Your task to perform on an android device: turn off airplane mode Image 0: 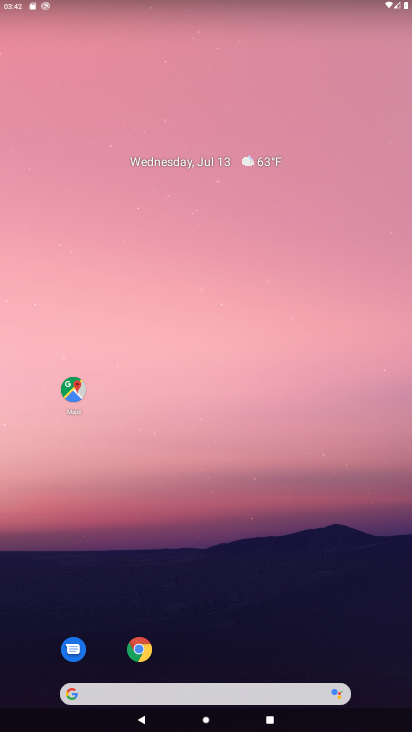
Step 0: drag from (245, 607) to (253, 3)
Your task to perform on an android device: turn off airplane mode Image 1: 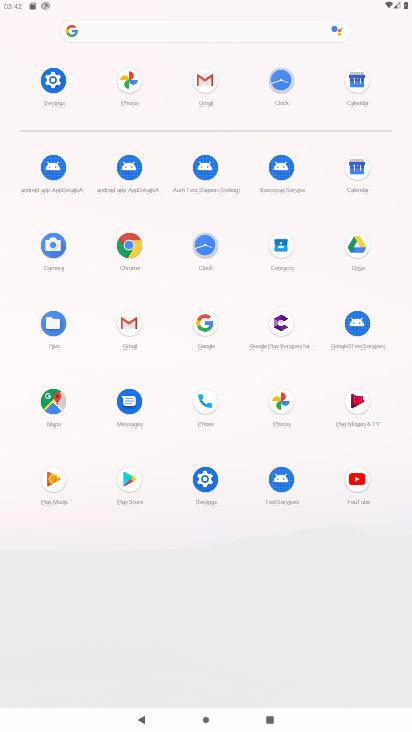
Step 1: click (53, 89)
Your task to perform on an android device: turn off airplane mode Image 2: 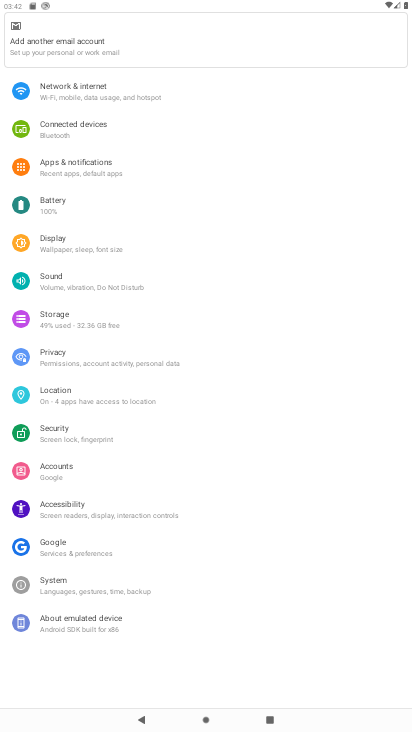
Step 2: click (113, 88)
Your task to perform on an android device: turn off airplane mode Image 3: 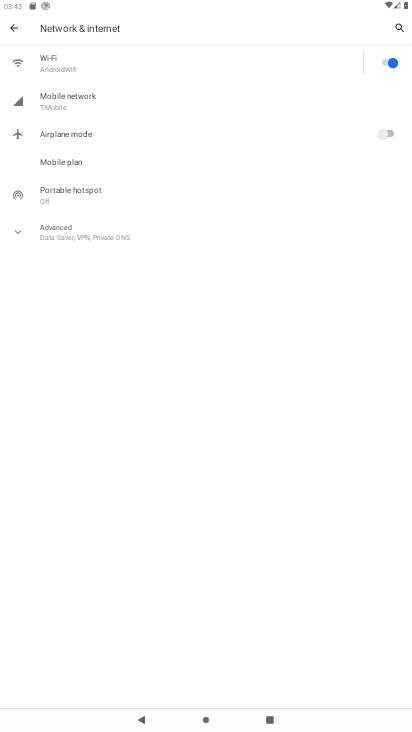
Step 3: task complete